Your task to perform on an android device: Open privacy settings Image 0: 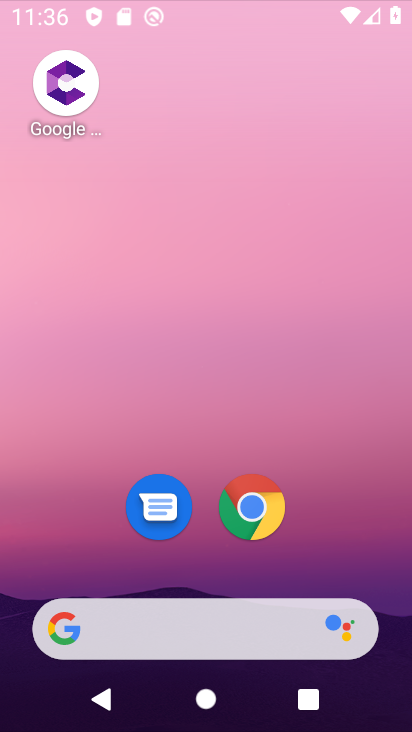
Step 0: drag from (330, 531) to (350, 14)
Your task to perform on an android device: Open privacy settings Image 1: 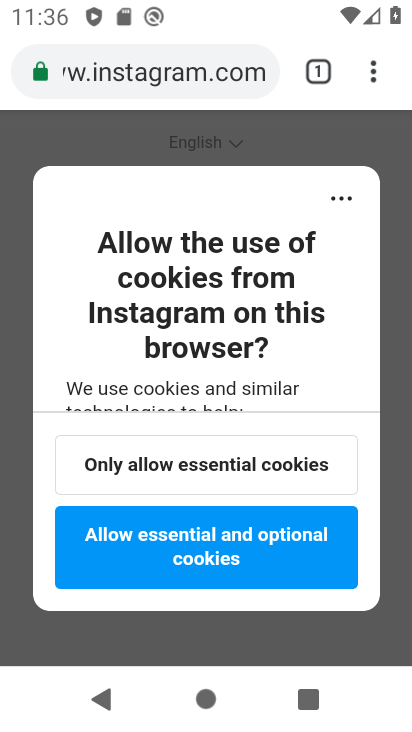
Step 1: press home button
Your task to perform on an android device: Open privacy settings Image 2: 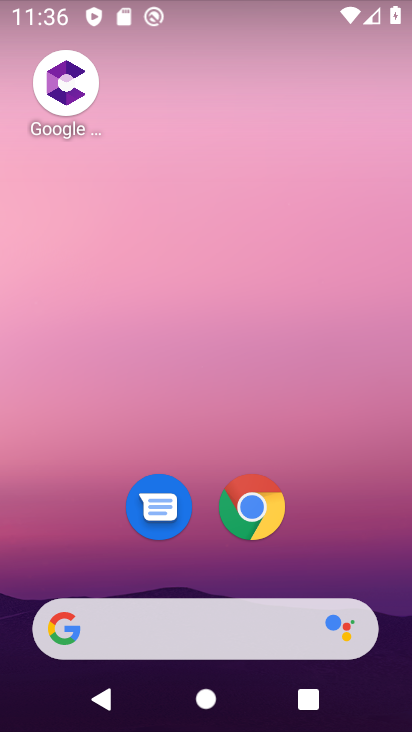
Step 2: drag from (247, 540) to (127, 4)
Your task to perform on an android device: Open privacy settings Image 3: 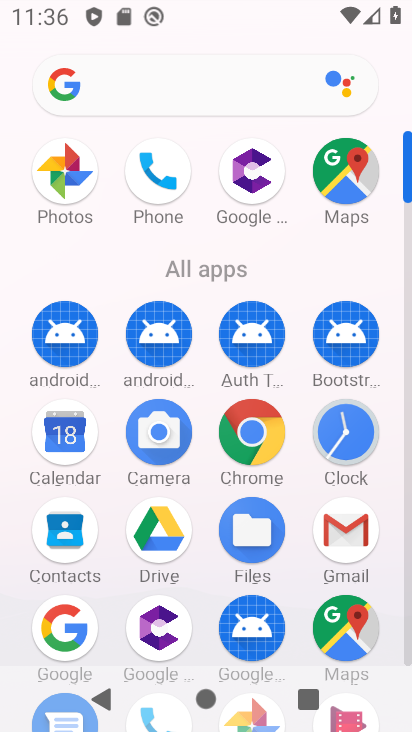
Step 3: drag from (293, 576) to (179, 271)
Your task to perform on an android device: Open privacy settings Image 4: 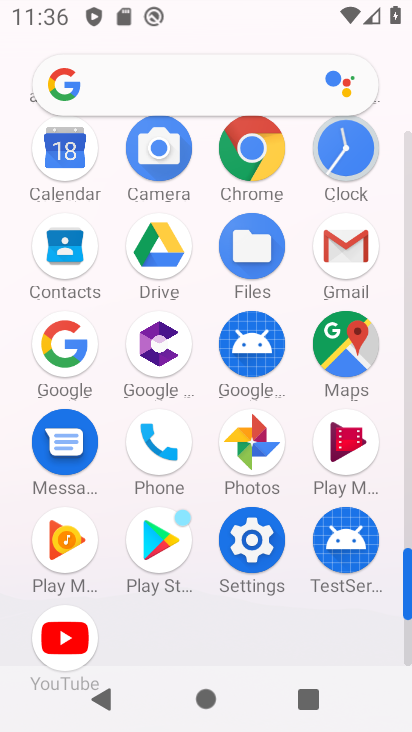
Step 4: click (245, 541)
Your task to perform on an android device: Open privacy settings Image 5: 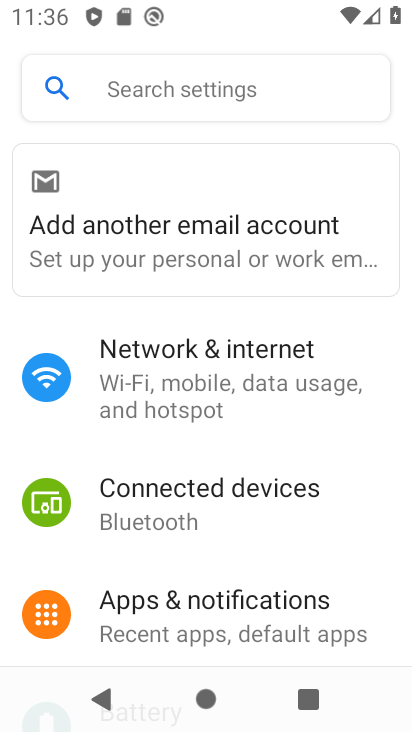
Step 5: drag from (242, 533) to (187, 179)
Your task to perform on an android device: Open privacy settings Image 6: 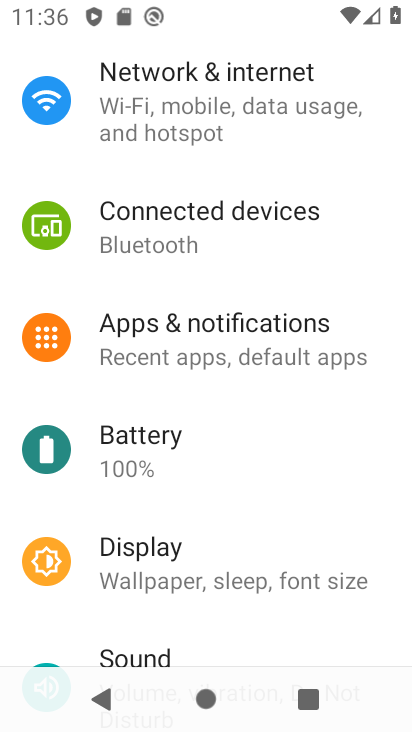
Step 6: drag from (190, 596) to (146, 189)
Your task to perform on an android device: Open privacy settings Image 7: 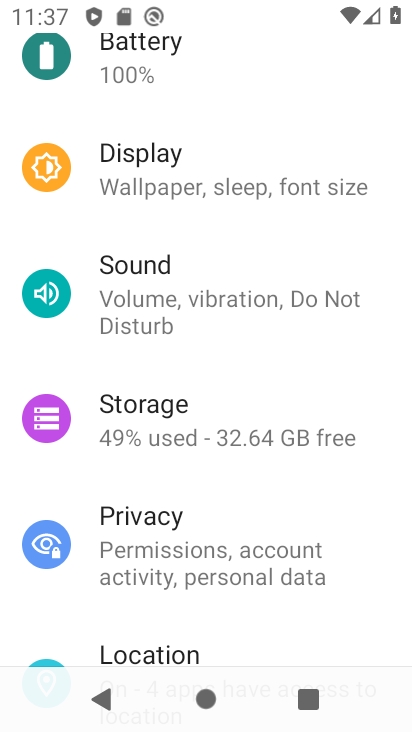
Step 7: click (184, 545)
Your task to perform on an android device: Open privacy settings Image 8: 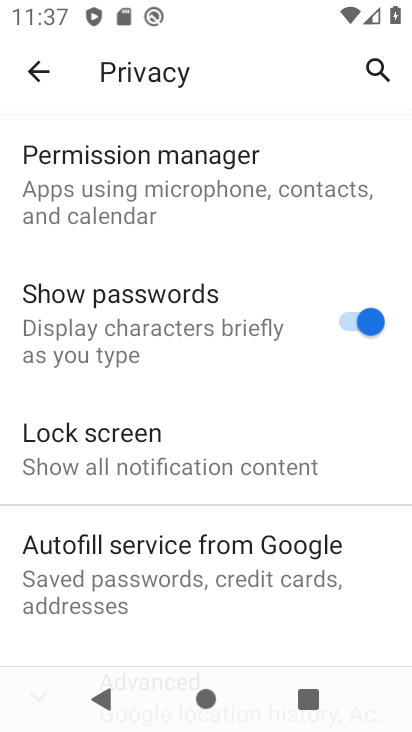
Step 8: task complete